Your task to perform on an android device: open app "Roku - Official Remote Control" (install if not already installed), go to login, and select forgot password Image 0: 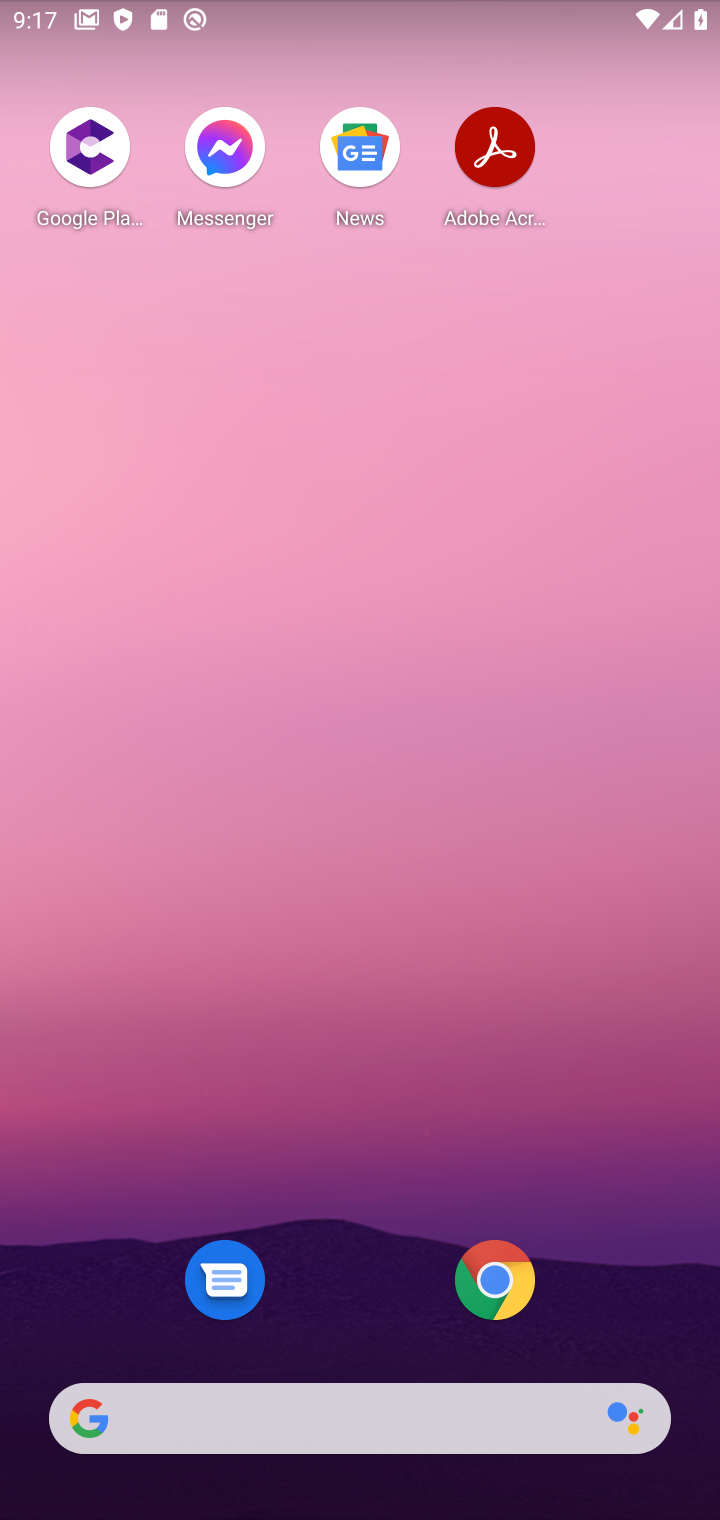
Step 0: drag from (313, 754) to (305, 38)
Your task to perform on an android device: open app "Roku - Official Remote Control" (install if not already installed), go to login, and select forgot password Image 1: 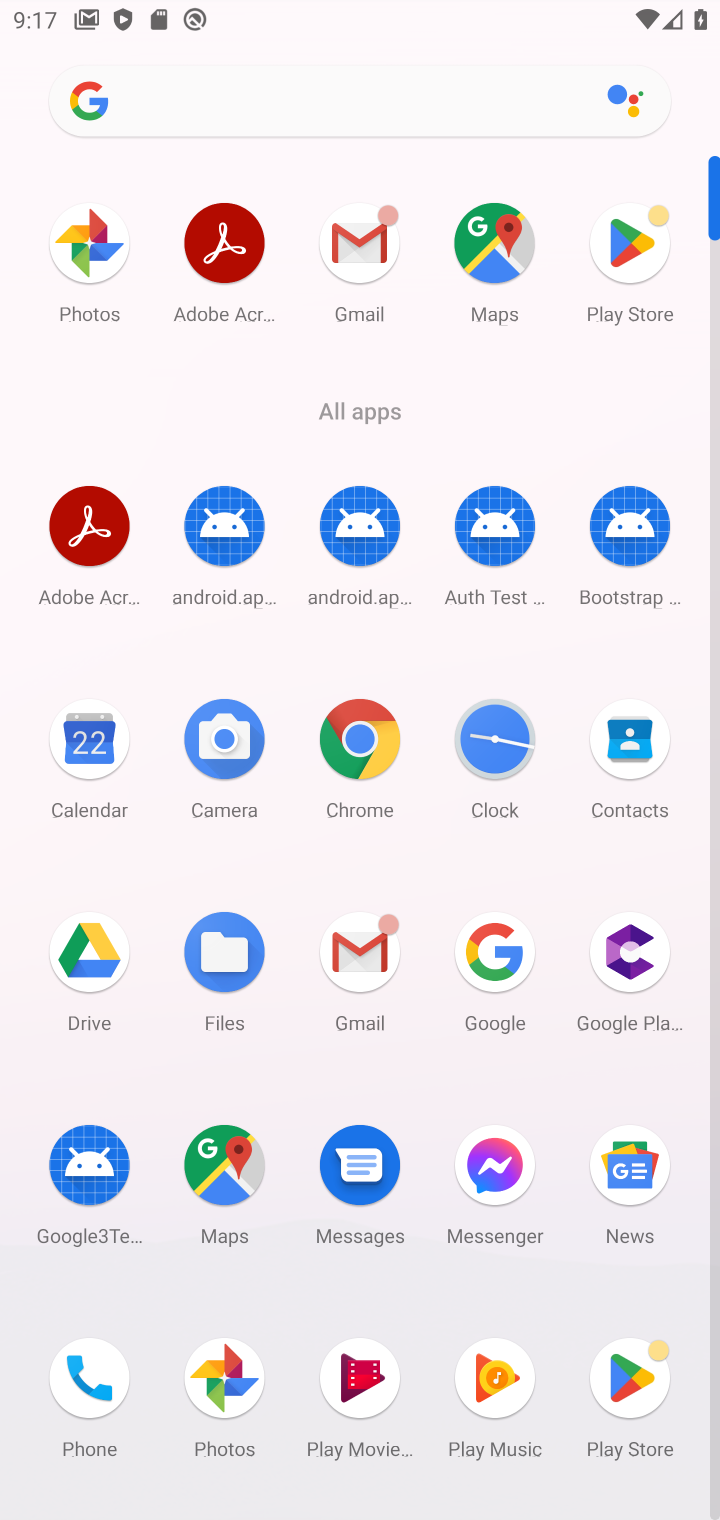
Step 1: click (622, 262)
Your task to perform on an android device: open app "Roku - Official Remote Control" (install if not already installed), go to login, and select forgot password Image 2: 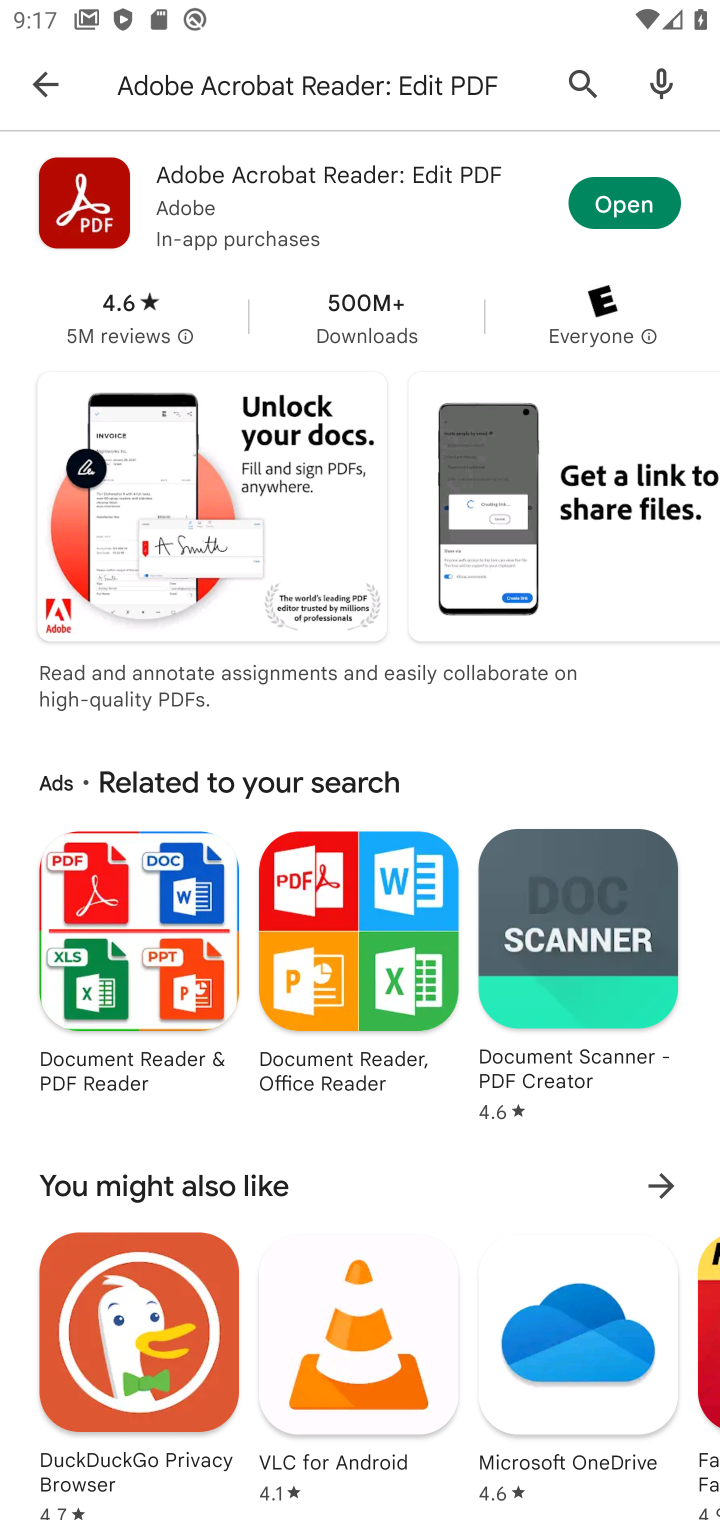
Step 2: press back button
Your task to perform on an android device: open app "Roku - Official Remote Control" (install if not already installed), go to login, and select forgot password Image 3: 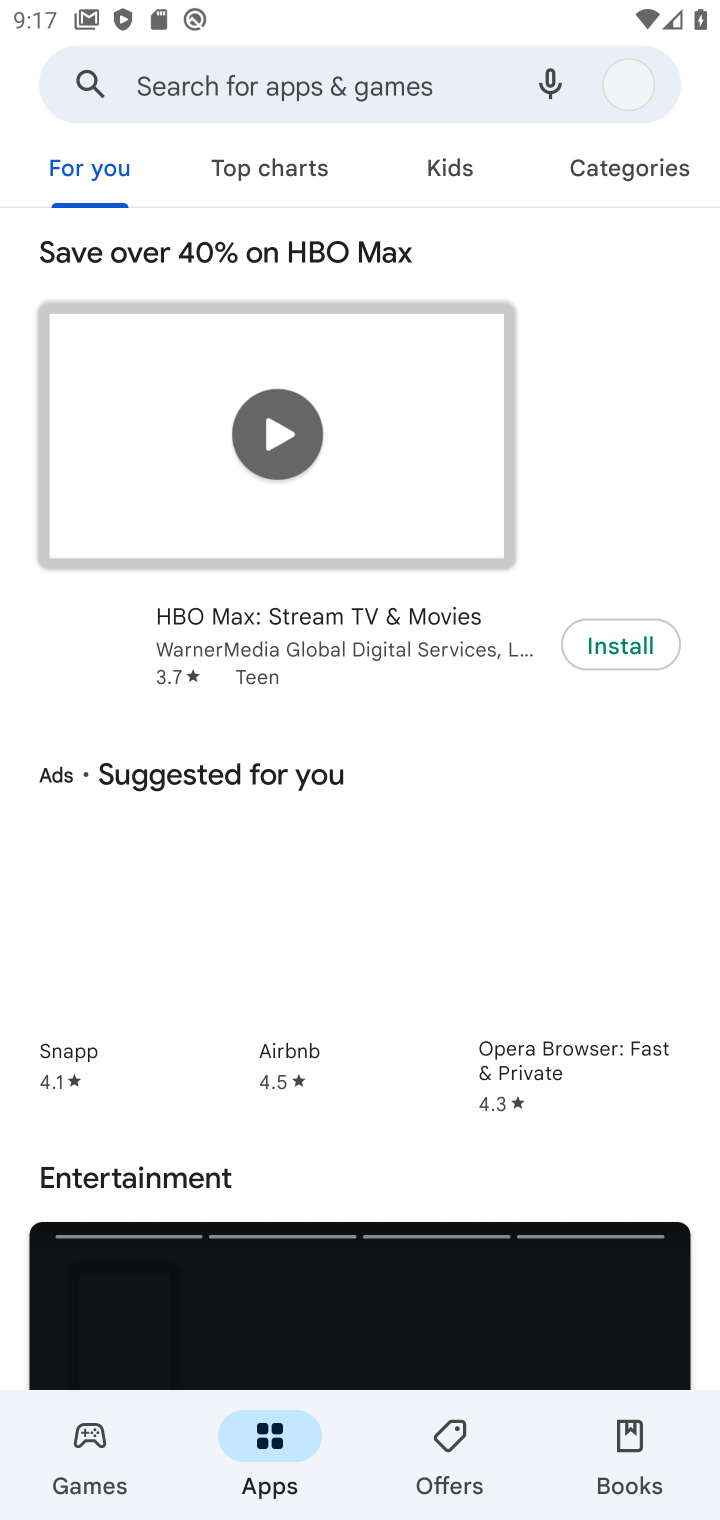
Step 3: click (301, 93)
Your task to perform on an android device: open app "Roku - Official Remote Control" (install if not already installed), go to login, and select forgot password Image 4: 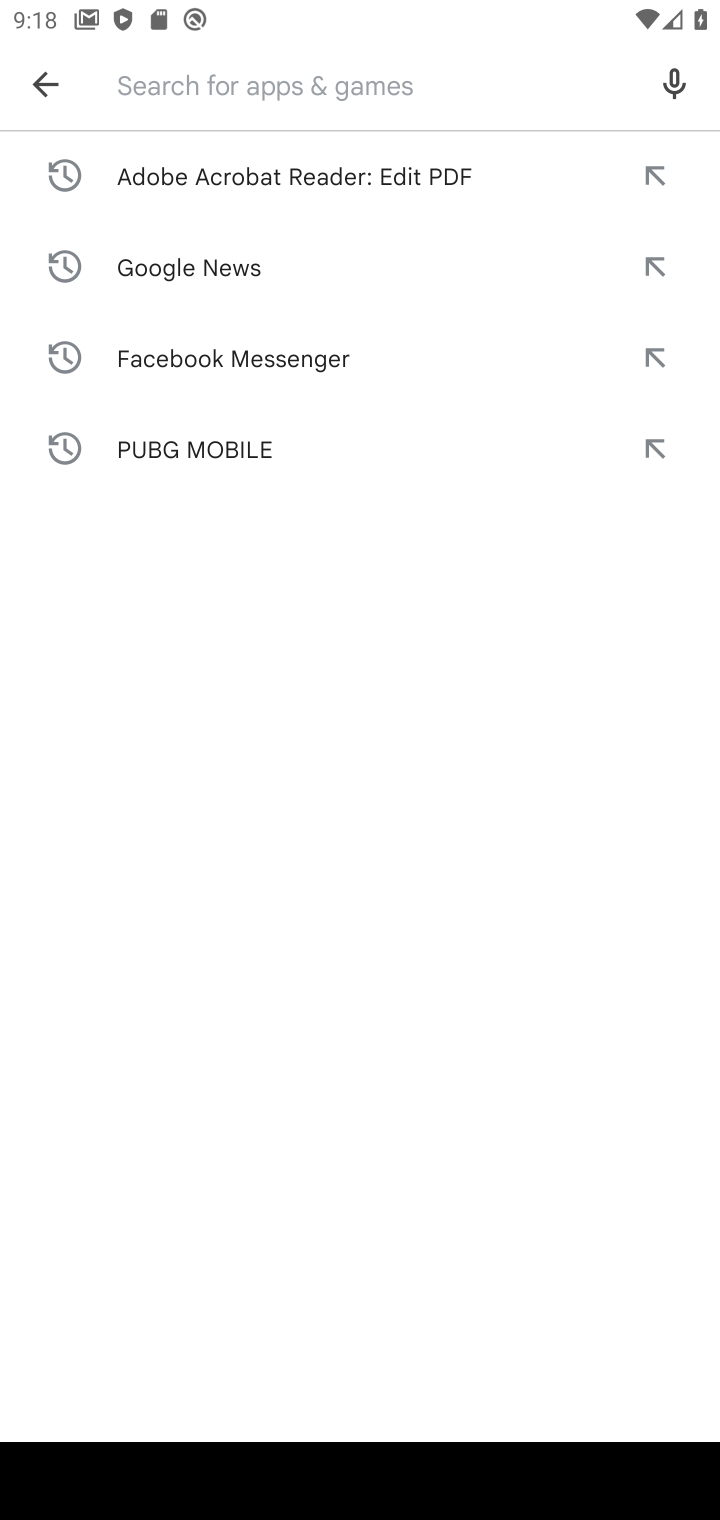
Step 4: type "Roku - Official Remote Control"
Your task to perform on an android device: open app "Roku - Official Remote Control" (install if not already installed), go to login, and select forgot password Image 5: 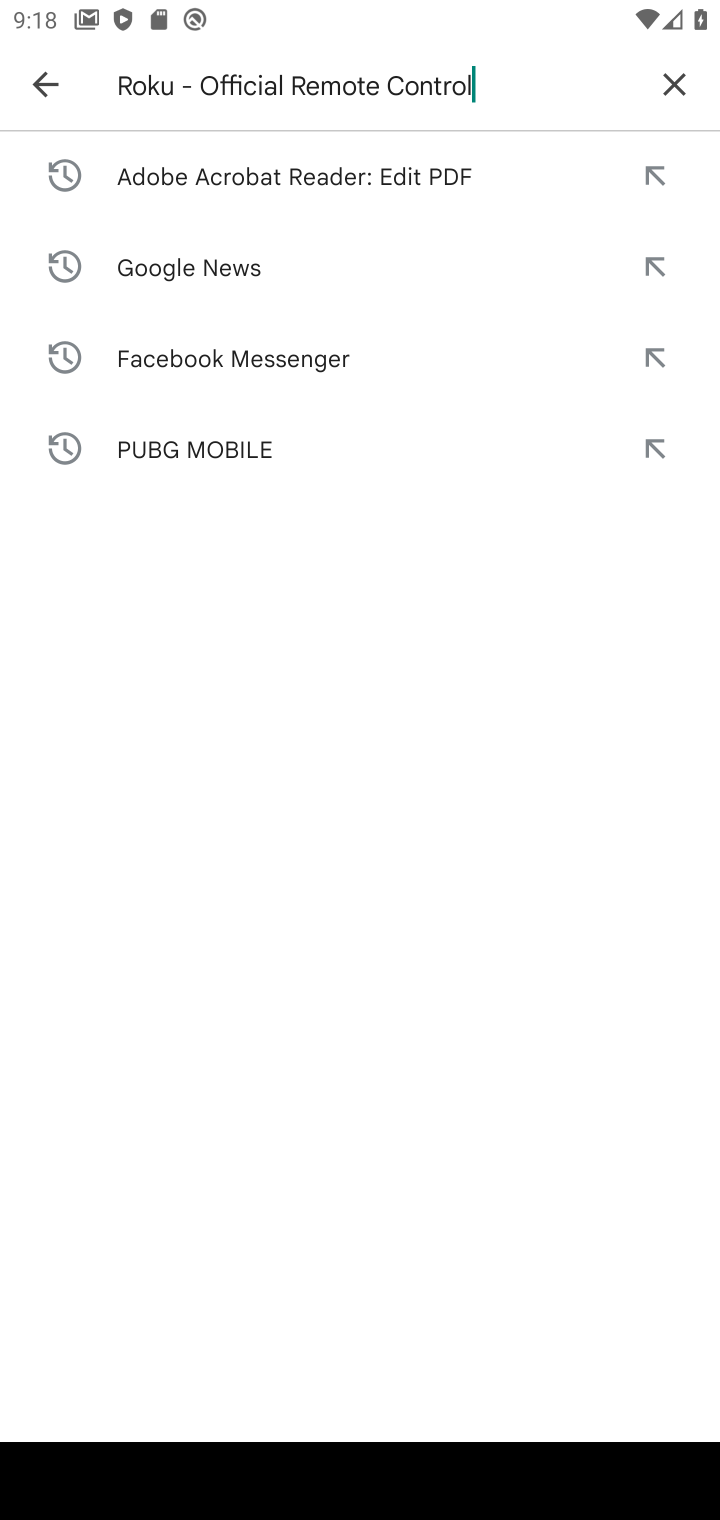
Step 5: press enter
Your task to perform on an android device: open app "Roku - Official Remote Control" (install if not already installed), go to login, and select forgot password Image 6: 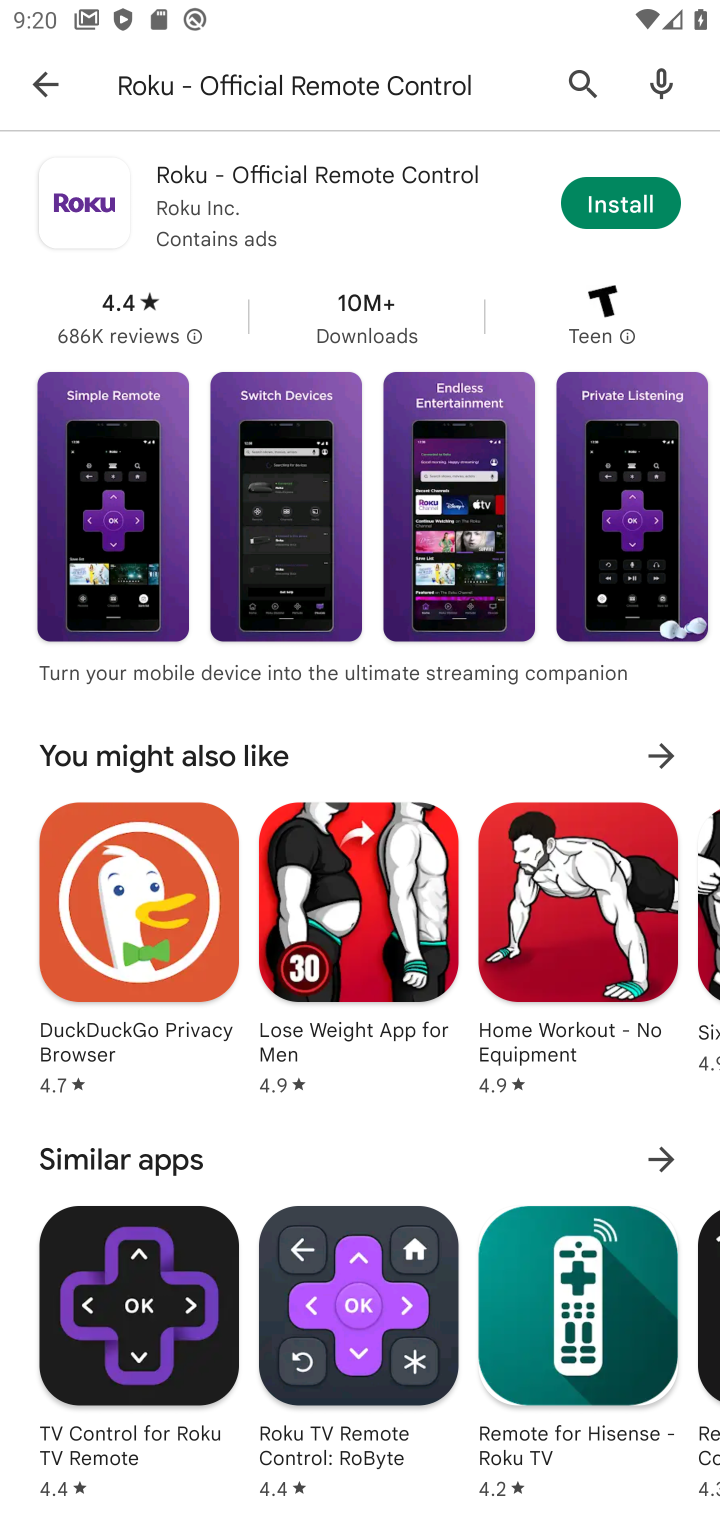
Step 6: click (601, 207)
Your task to perform on an android device: open app "Roku - Official Remote Control" (install if not already installed), go to login, and select forgot password Image 7: 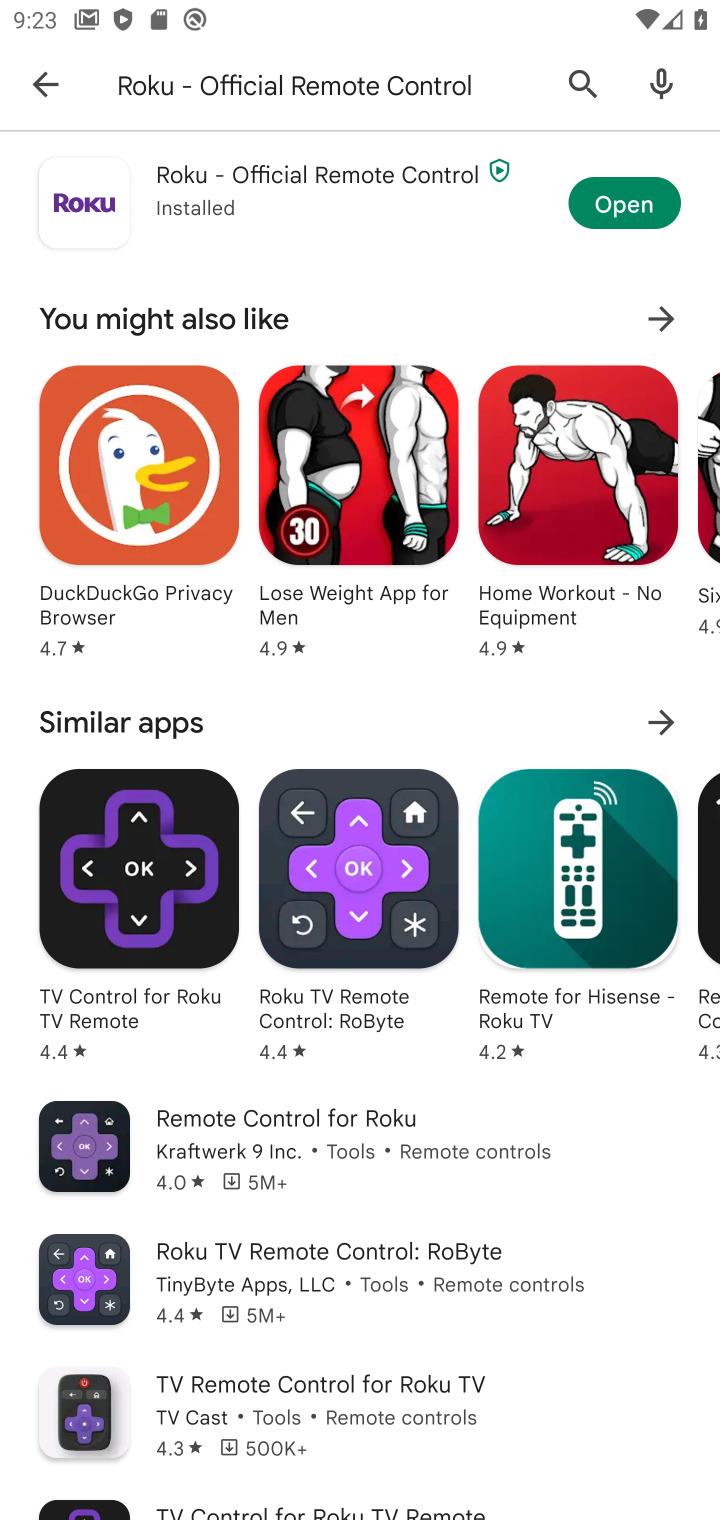
Step 7: click (643, 196)
Your task to perform on an android device: open app "Roku - Official Remote Control" (install if not already installed), go to login, and select forgot password Image 8: 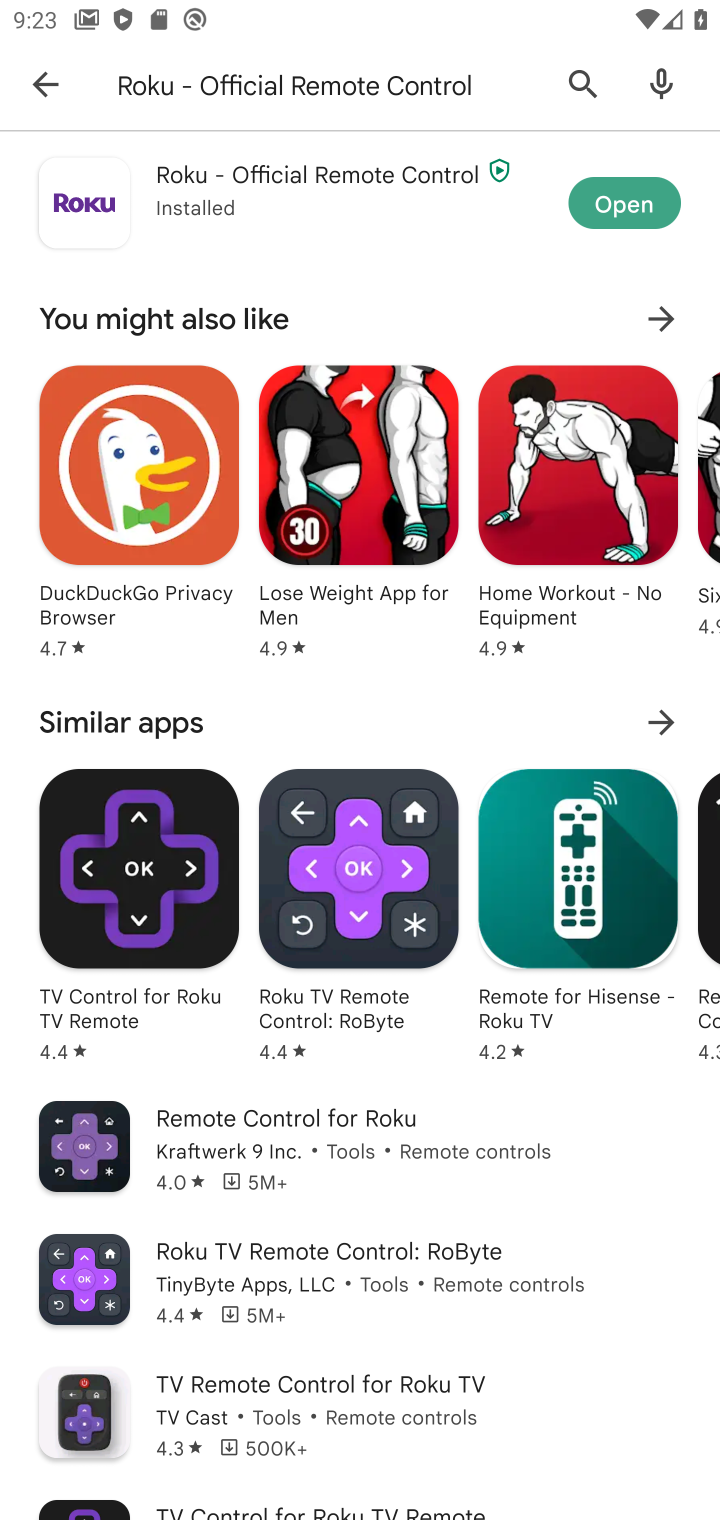
Step 8: task complete